Your task to perform on an android device: Check the news Image 0: 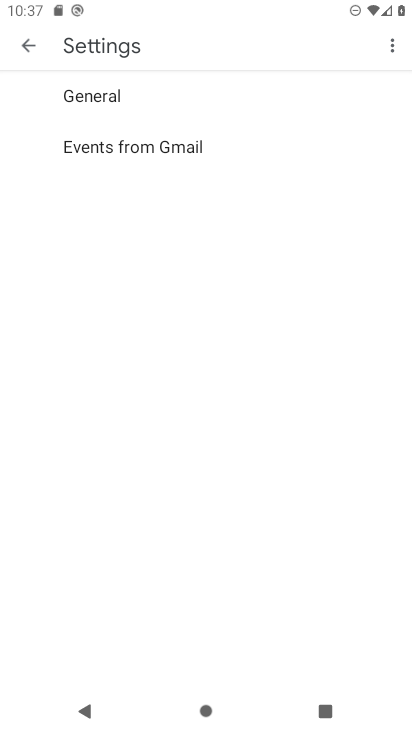
Step 0: press home button
Your task to perform on an android device: Check the news Image 1: 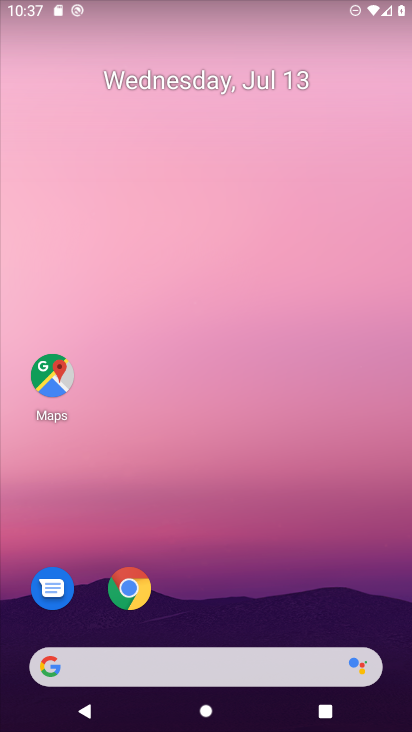
Step 1: drag from (176, 631) to (219, 61)
Your task to perform on an android device: Check the news Image 2: 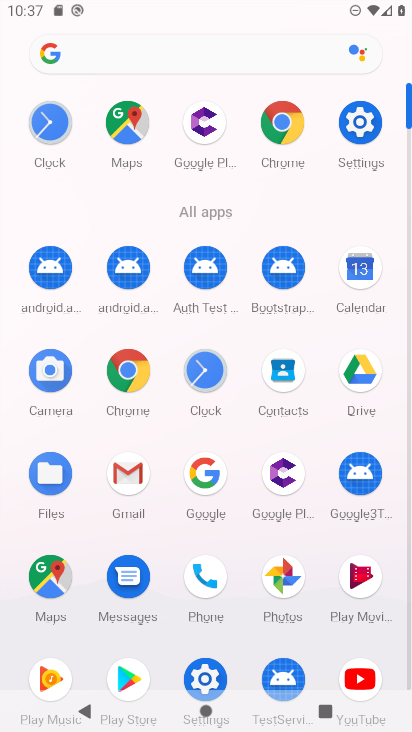
Step 2: click (224, 60)
Your task to perform on an android device: Check the news Image 3: 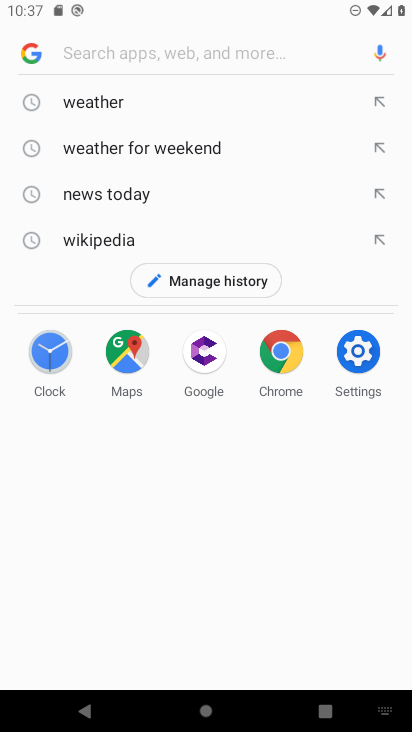
Step 3: type "news"
Your task to perform on an android device: Check the news Image 4: 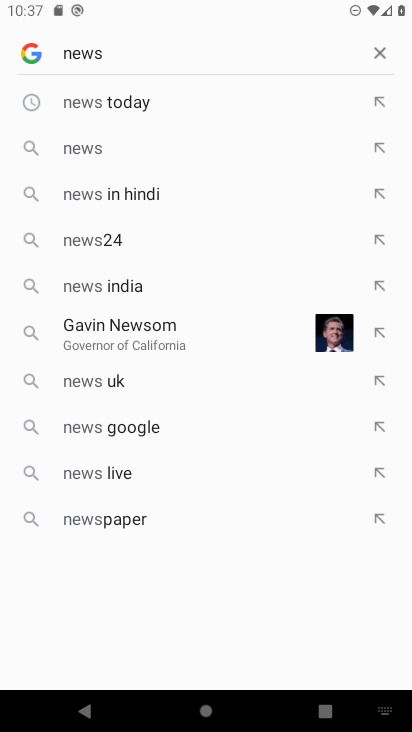
Step 4: click (83, 148)
Your task to perform on an android device: Check the news Image 5: 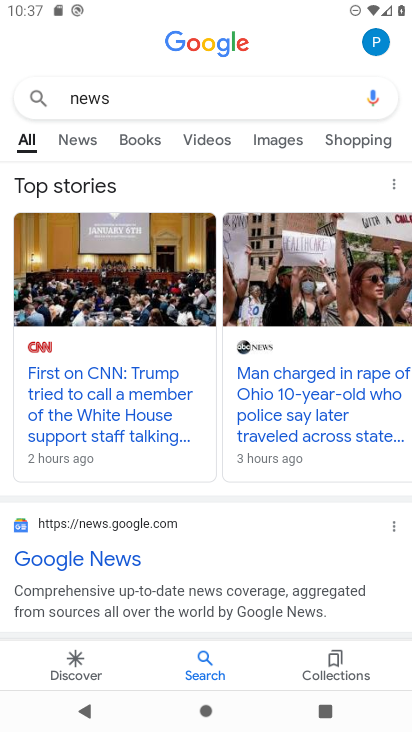
Step 5: task complete